Your task to perform on an android device: search for starred emails in the gmail app Image 0: 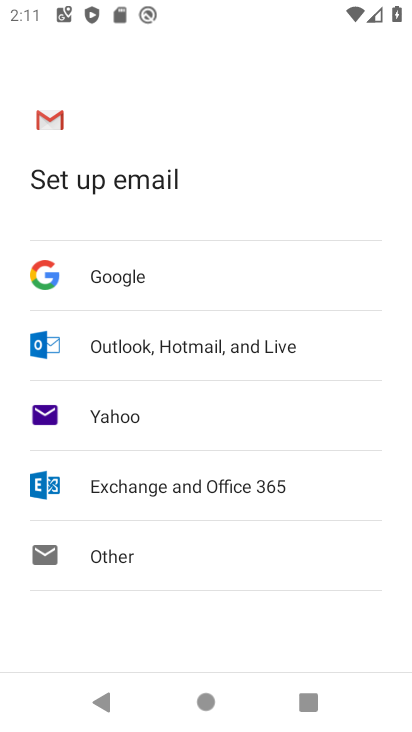
Step 0: press home button
Your task to perform on an android device: search for starred emails in the gmail app Image 1: 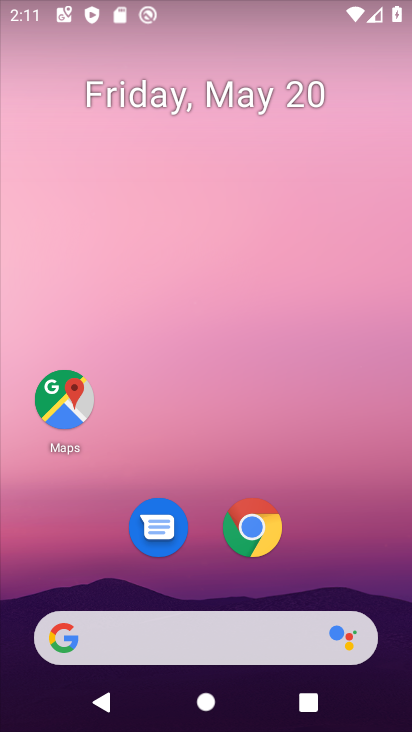
Step 1: drag from (243, 702) to (293, 172)
Your task to perform on an android device: search for starred emails in the gmail app Image 2: 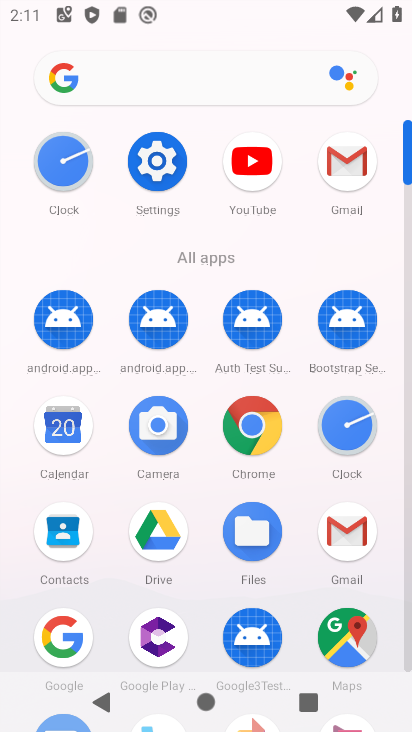
Step 2: click (340, 160)
Your task to perform on an android device: search for starred emails in the gmail app Image 3: 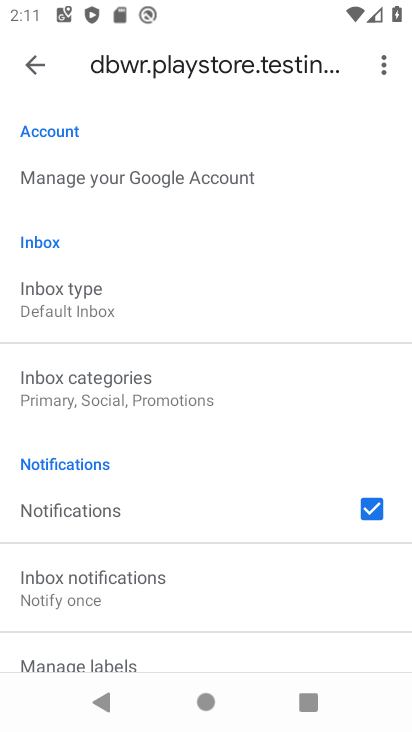
Step 3: click (35, 63)
Your task to perform on an android device: search for starred emails in the gmail app Image 4: 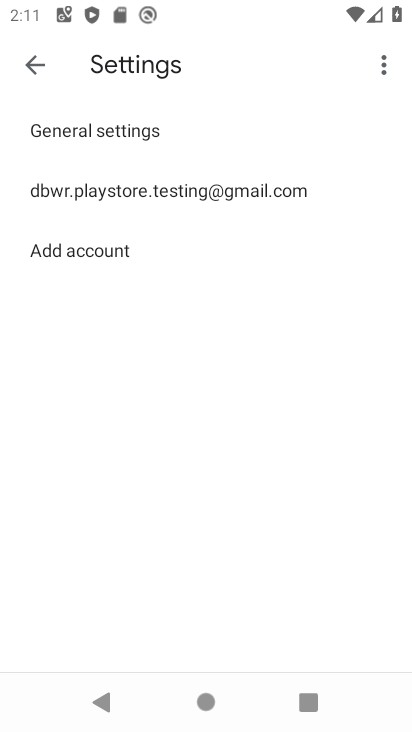
Step 4: click (90, 197)
Your task to perform on an android device: search for starred emails in the gmail app Image 5: 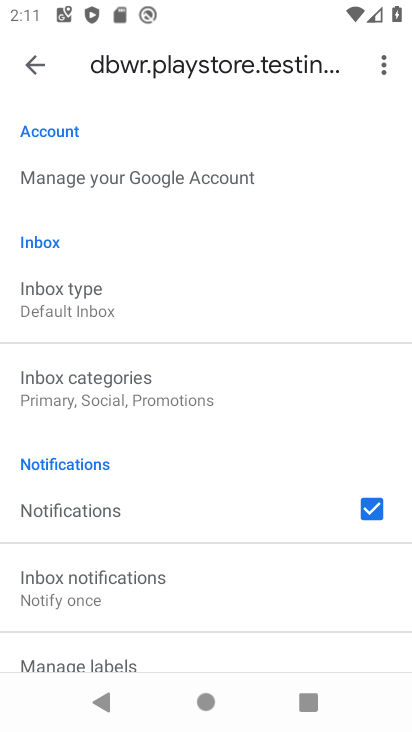
Step 5: click (46, 76)
Your task to perform on an android device: search for starred emails in the gmail app Image 6: 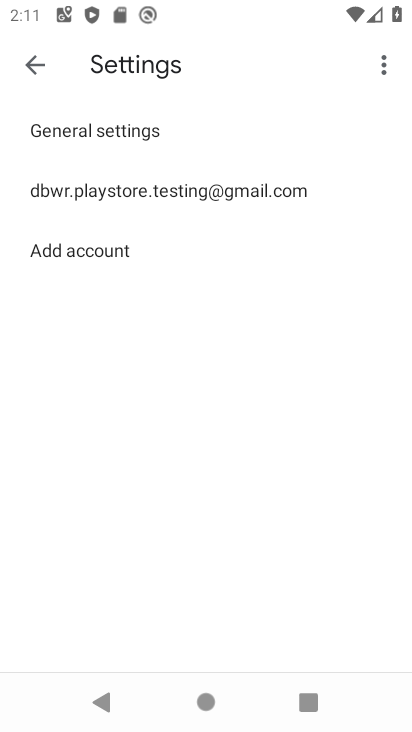
Step 6: click (34, 68)
Your task to perform on an android device: search for starred emails in the gmail app Image 7: 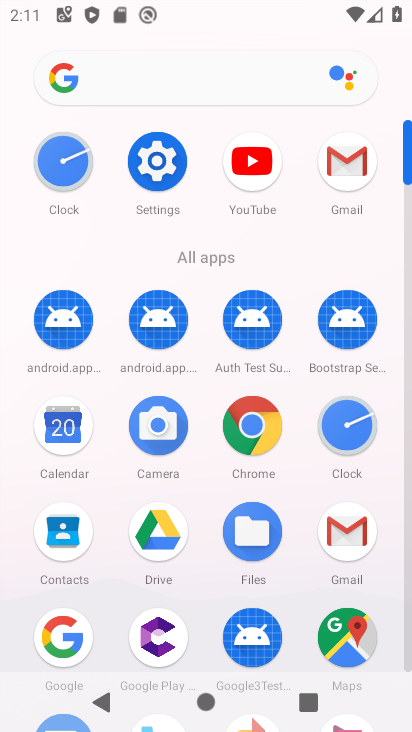
Step 7: click (341, 163)
Your task to perform on an android device: search for starred emails in the gmail app Image 8: 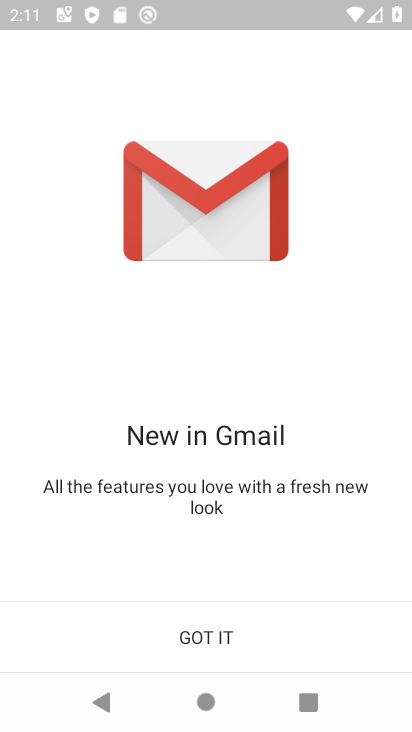
Step 8: click (130, 632)
Your task to perform on an android device: search for starred emails in the gmail app Image 9: 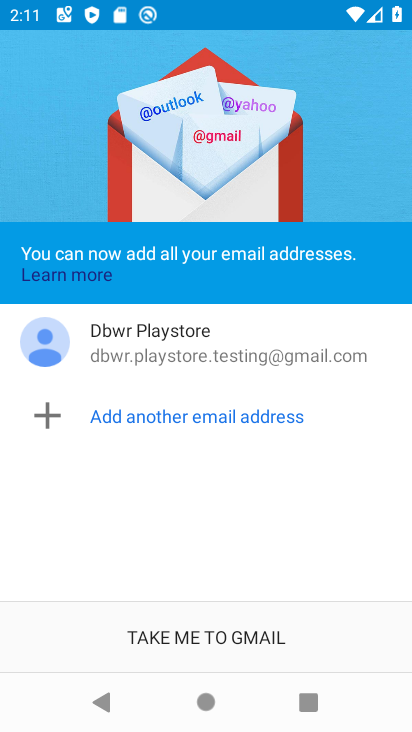
Step 9: click (130, 632)
Your task to perform on an android device: search for starred emails in the gmail app Image 10: 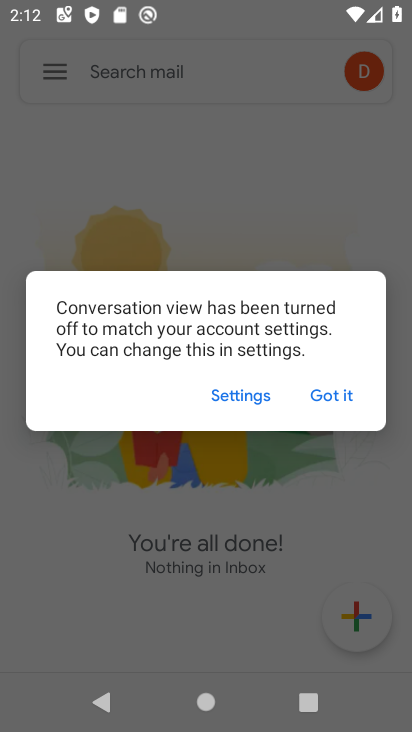
Step 10: click (345, 397)
Your task to perform on an android device: search for starred emails in the gmail app Image 11: 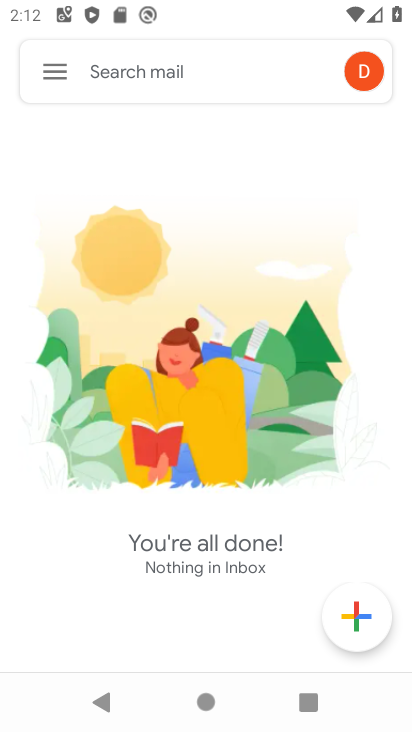
Step 11: click (63, 77)
Your task to perform on an android device: search for starred emails in the gmail app Image 12: 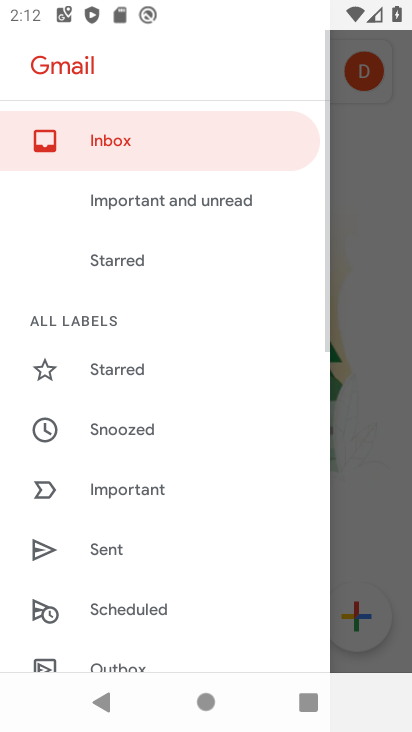
Step 12: click (122, 260)
Your task to perform on an android device: search for starred emails in the gmail app Image 13: 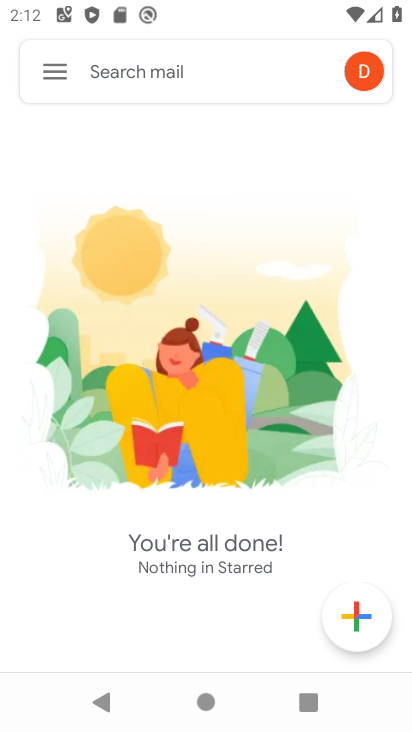
Step 13: task complete